Your task to perform on an android device: Open Wikipedia Image 0: 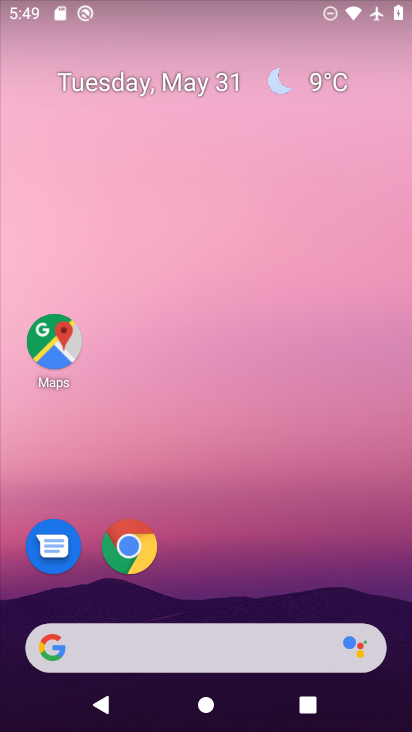
Step 0: click (140, 557)
Your task to perform on an android device: Open Wikipedia Image 1: 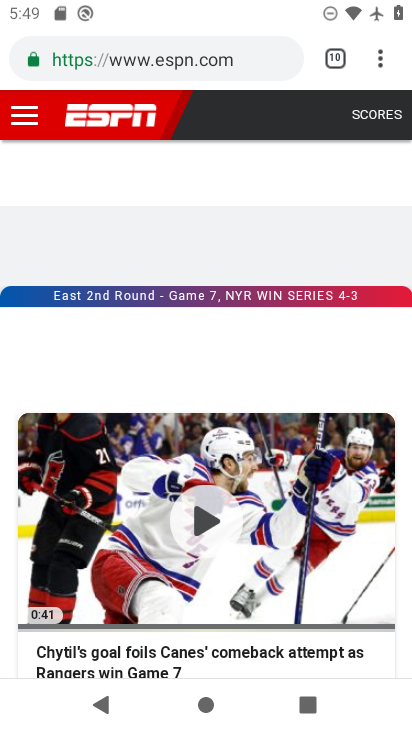
Step 1: click (324, 60)
Your task to perform on an android device: Open Wikipedia Image 2: 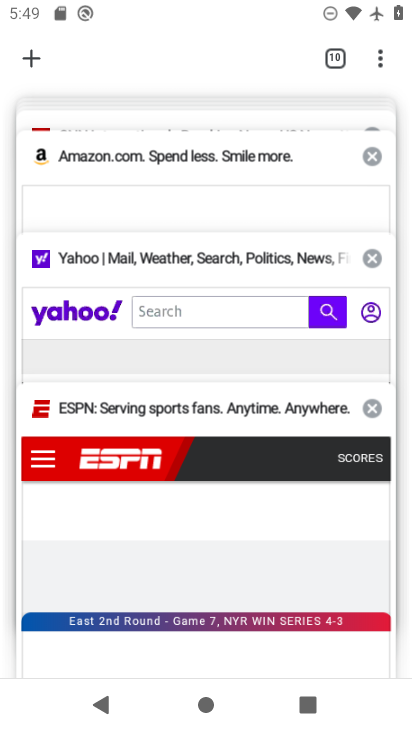
Step 2: drag from (126, 131) to (155, 621)
Your task to perform on an android device: Open Wikipedia Image 3: 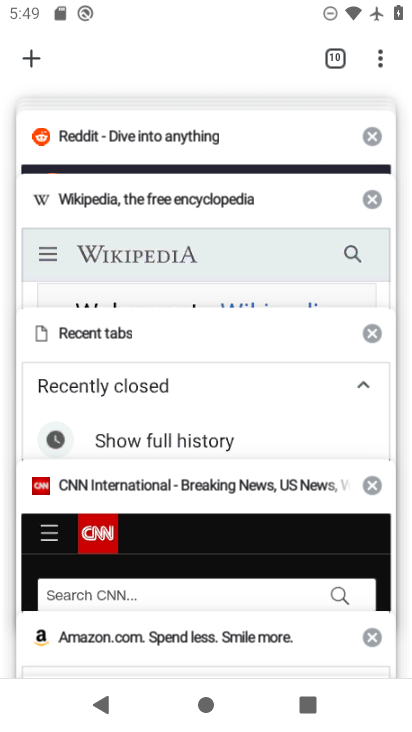
Step 3: click (95, 245)
Your task to perform on an android device: Open Wikipedia Image 4: 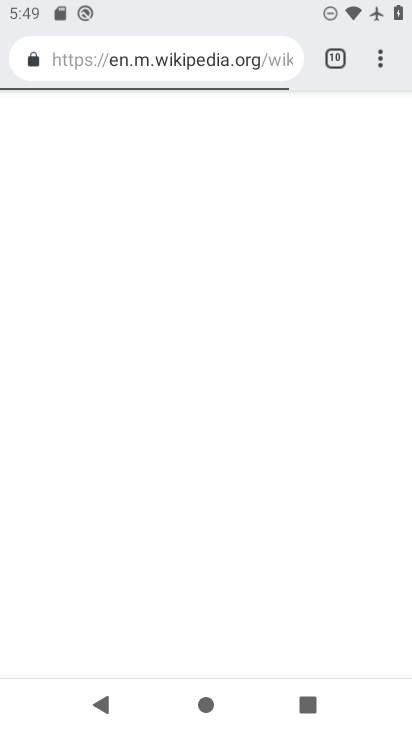
Step 4: task complete